Your task to perform on an android device: open app "ColorNote Notepad Notes" Image 0: 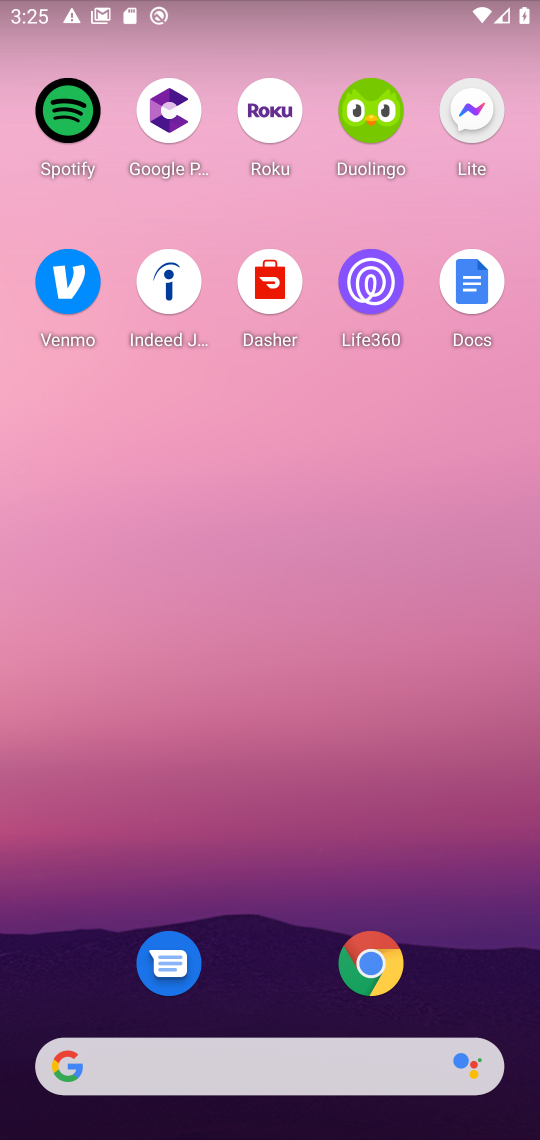
Step 0: drag from (280, 1016) to (268, 253)
Your task to perform on an android device: open app "ColorNote Notepad Notes" Image 1: 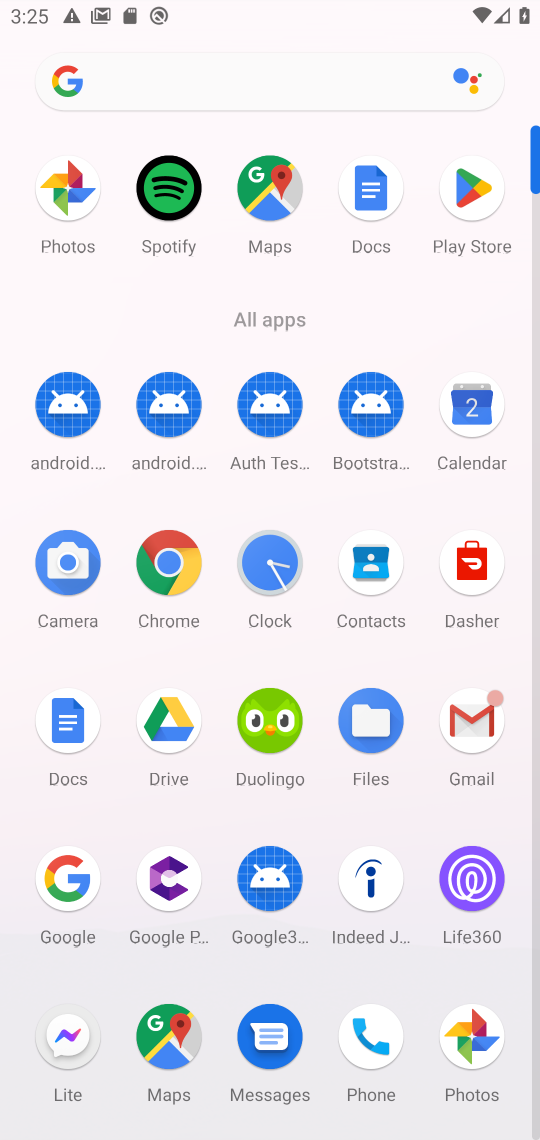
Step 1: click (474, 178)
Your task to perform on an android device: open app "ColorNote Notepad Notes" Image 2: 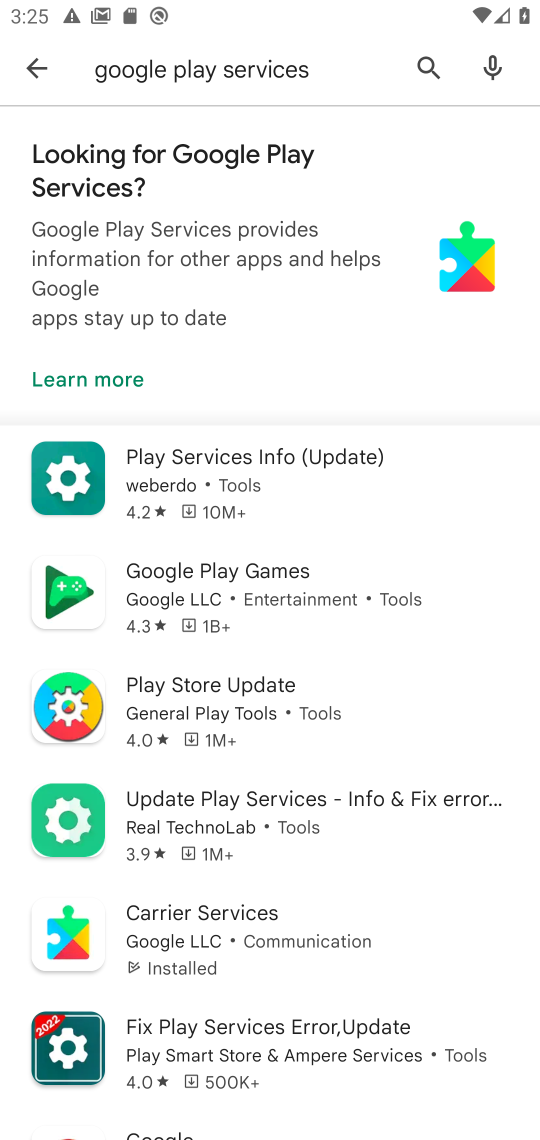
Step 2: click (408, 72)
Your task to perform on an android device: open app "ColorNote Notepad Notes" Image 3: 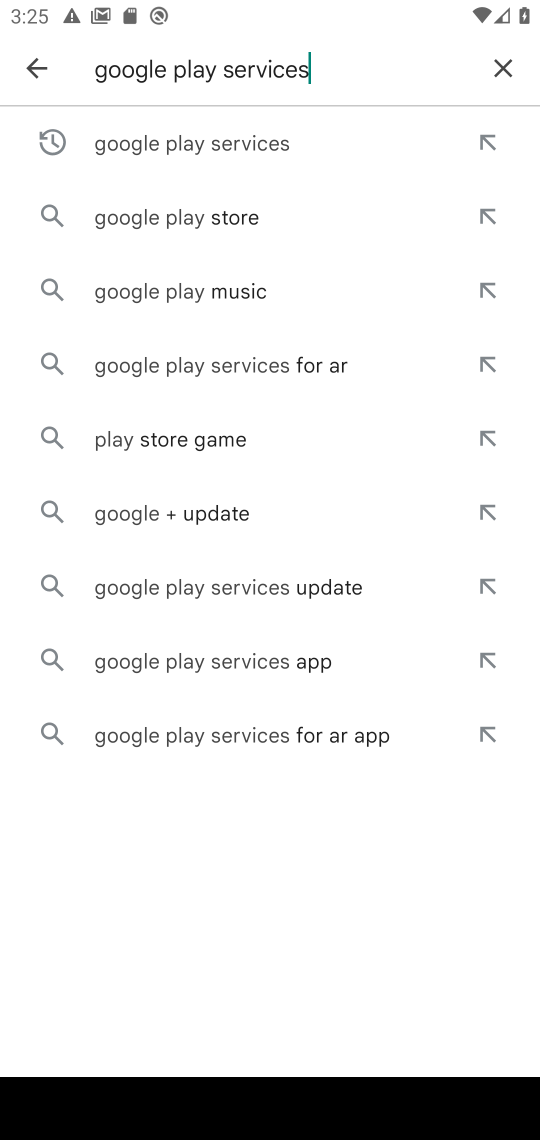
Step 3: click (502, 62)
Your task to perform on an android device: open app "ColorNote Notepad Notes" Image 4: 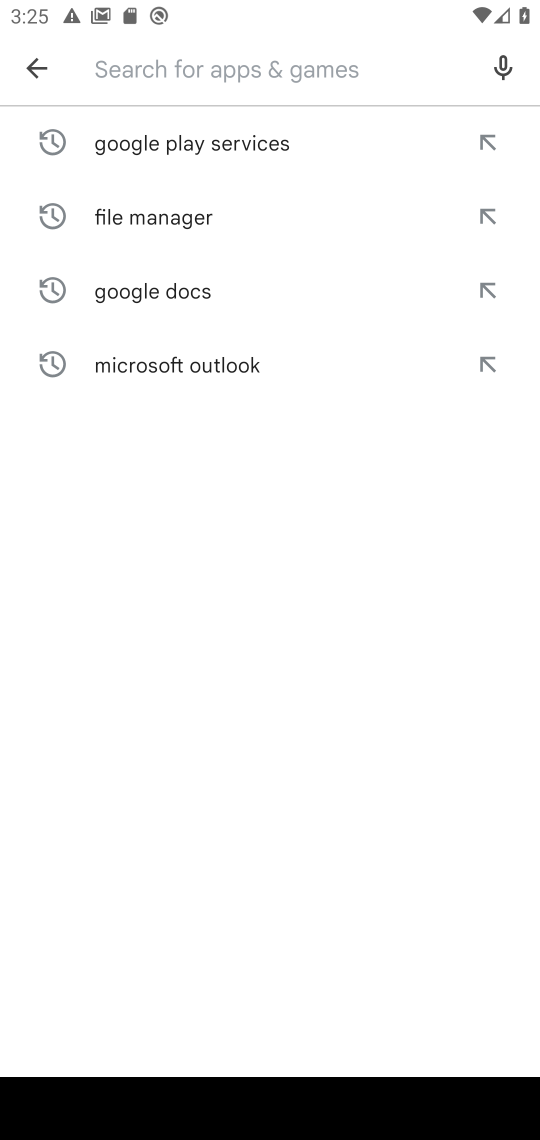
Step 4: type "ColorNote Notepad Notes"
Your task to perform on an android device: open app "ColorNote Notepad Notes" Image 5: 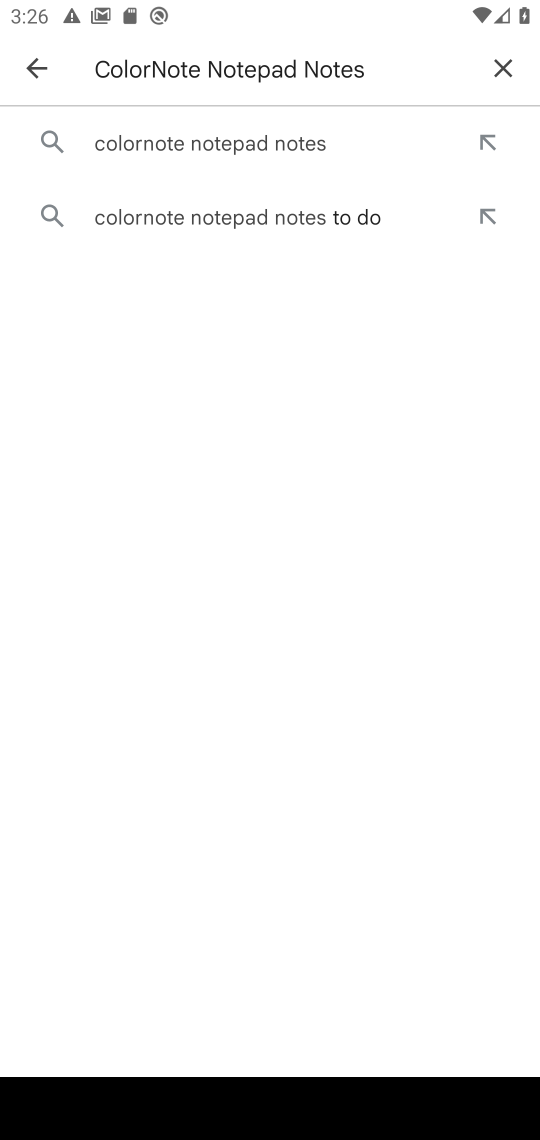
Step 5: click (256, 148)
Your task to perform on an android device: open app "ColorNote Notepad Notes" Image 6: 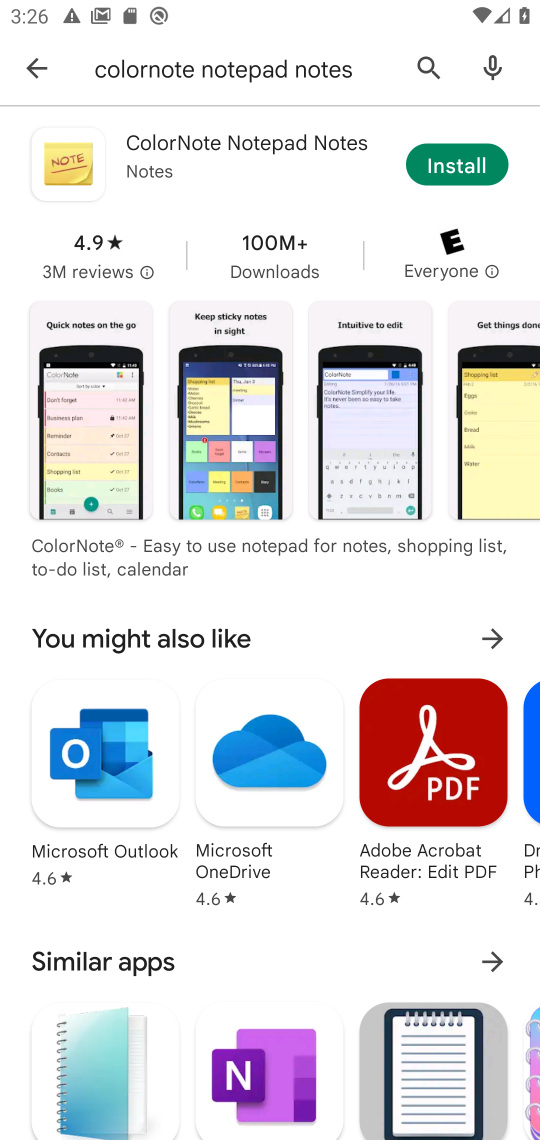
Step 6: click (427, 165)
Your task to perform on an android device: open app "ColorNote Notepad Notes" Image 7: 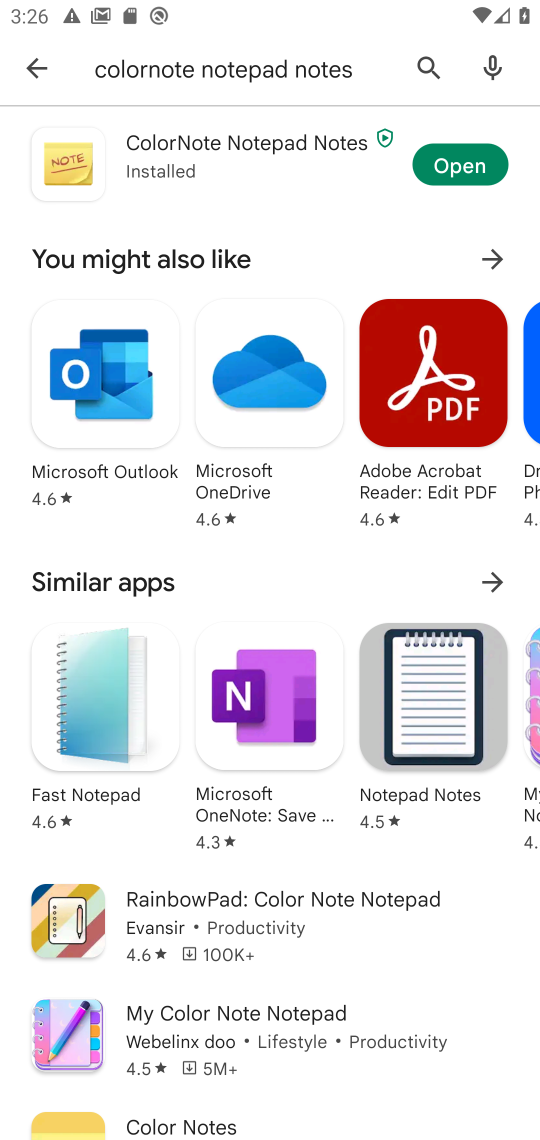
Step 7: click (447, 161)
Your task to perform on an android device: open app "ColorNote Notepad Notes" Image 8: 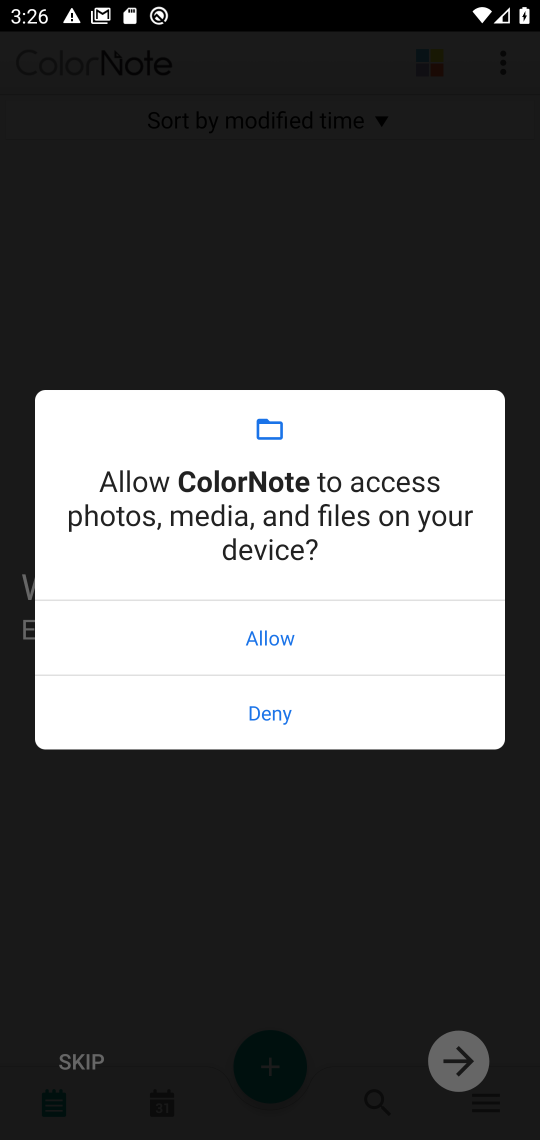
Step 8: task complete